Your task to perform on an android device: empty trash in google photos Image 0: 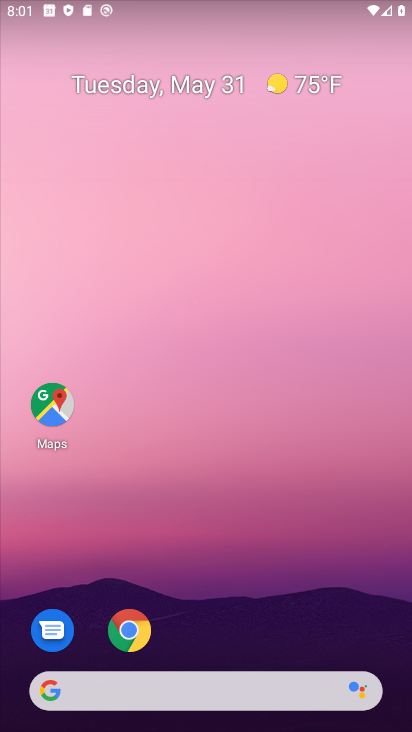
Step 0: drag from (230, 573) to (248, 217)
Your task to perform on an android device: empty trash in google photos Image 1: 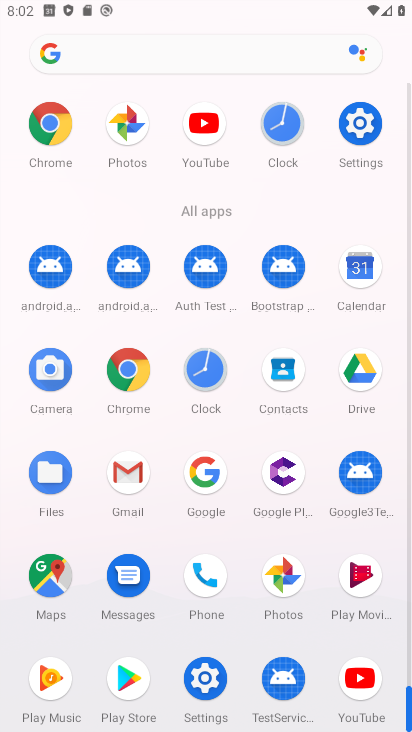
Step 1: click (284, 585)
Your task to perform on an android device: empty trash in google photos Image 2: 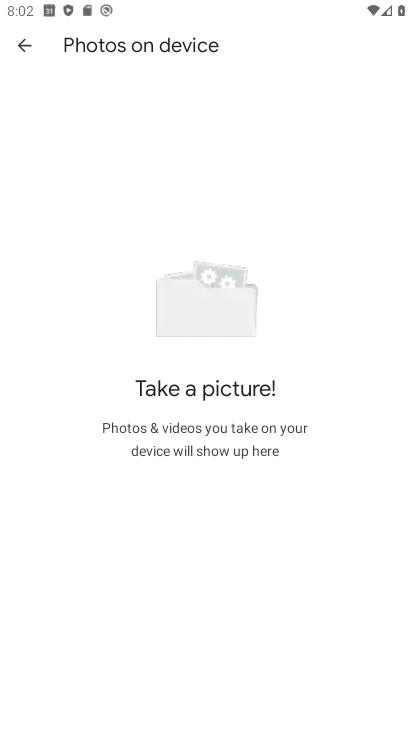
Step 2: click (25, 44)
Your task to perform on an android device: empty trash in google photos Image 3: 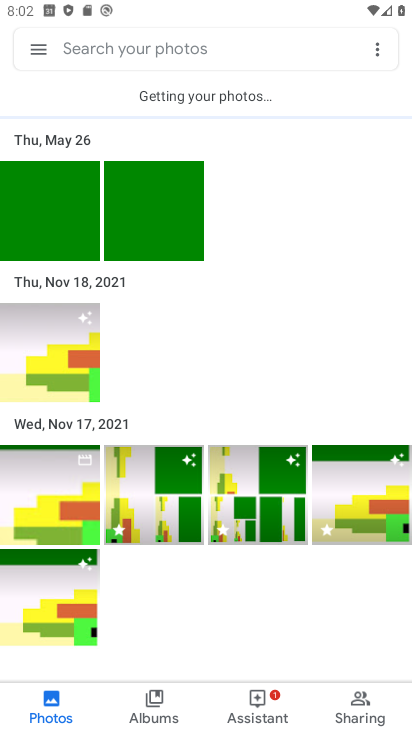
Step 3: click (44, 50)
Your task to perform on an android device: empty trash in google photos Image 4: 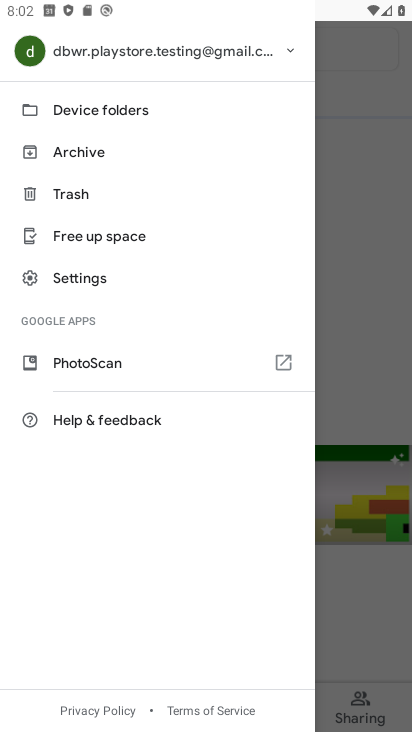
Step 4: click (70, 186)
Your task to perform on an android device: empty trash in google photos Image 5: 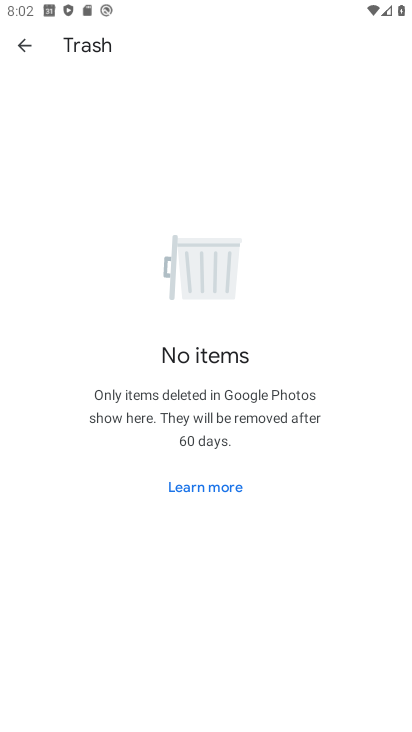
Step 5: task complete